Your task to perform on an android device: turn on wifi Image 0: 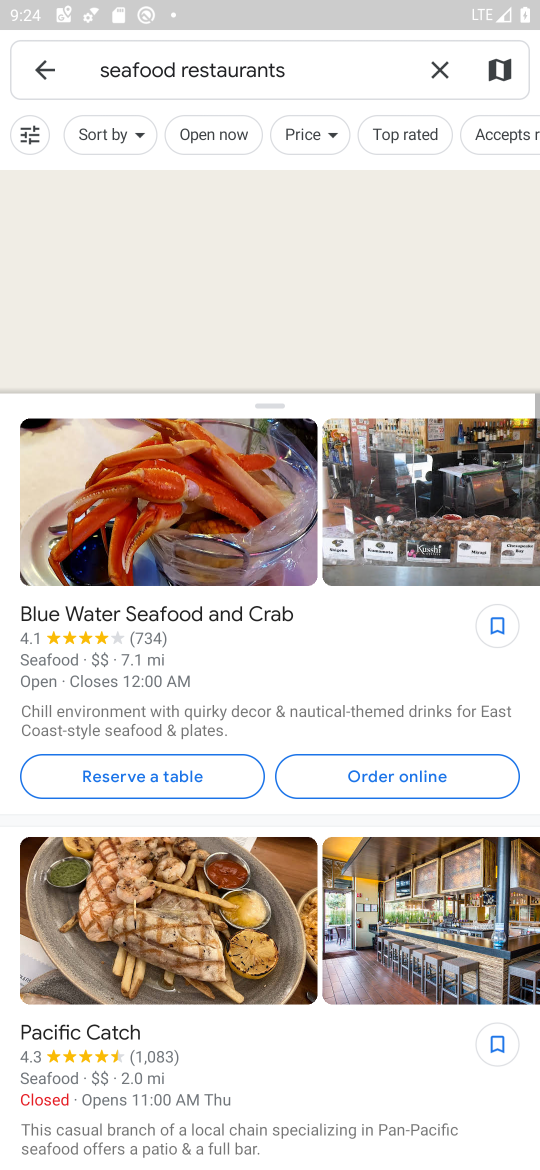
Step 0: press home button
Your task to perform on an android device: turn on wifi Image 1: 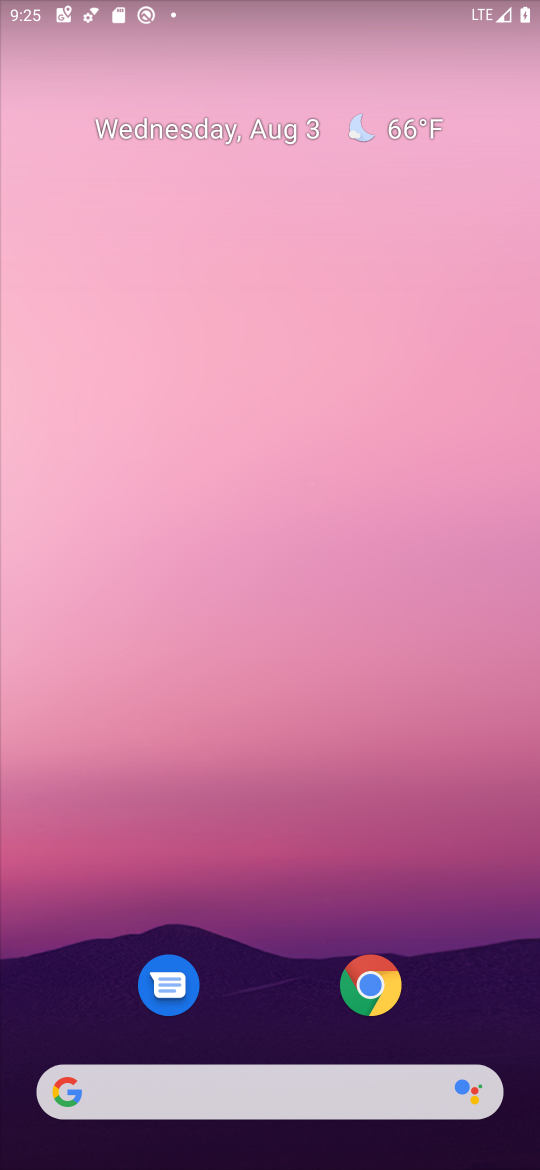
Step 1: drag from (269, 912) to (269, 303)
Your task to perform on an android device: turn on wifi Image 2: 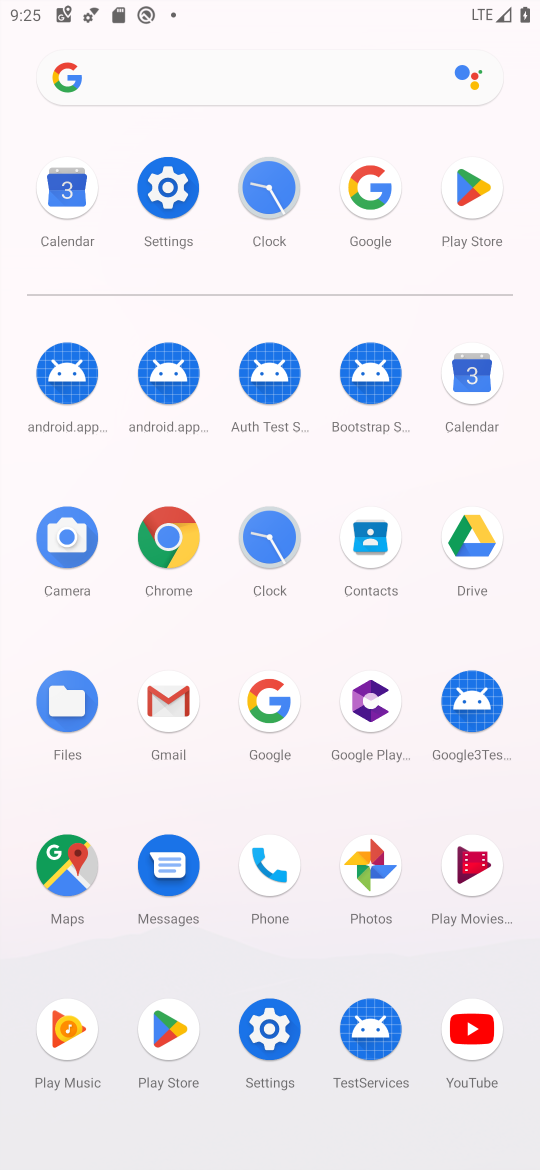
Step 2: click (167, 201)
Your task to perform on an android device: turn on wifi Image 3: 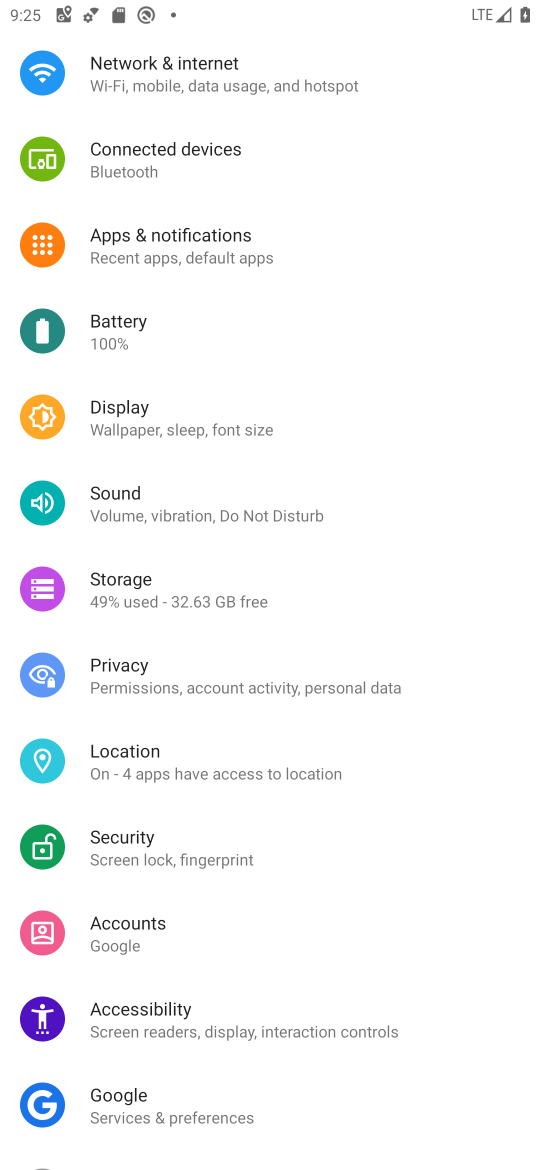
Step 3: click (243, 54)
Your task to perform on an android device: turn on wifi Image 4: 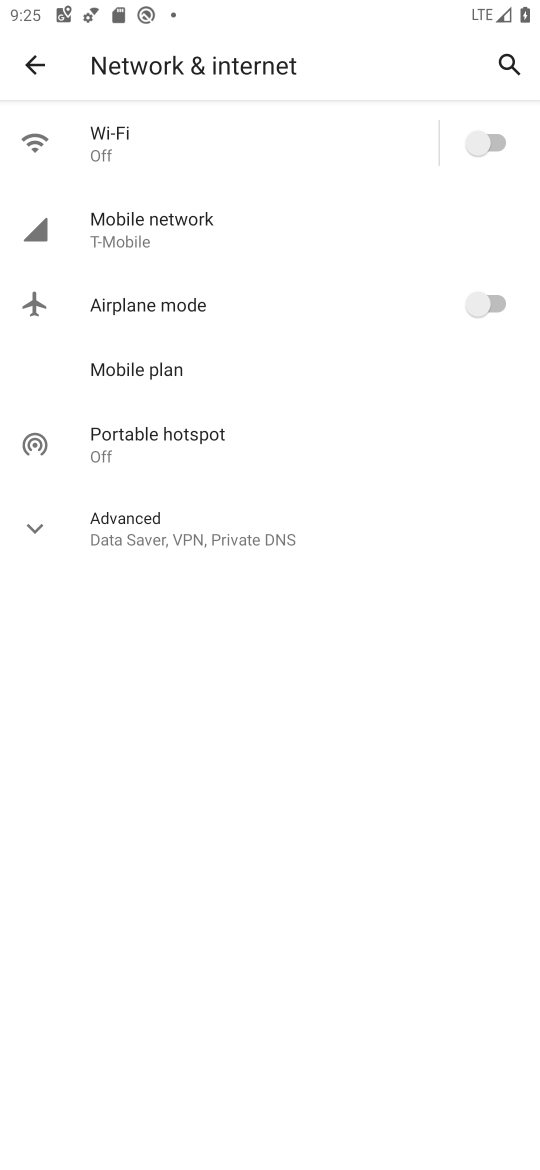
Step 4: click (484, 139)
Your task to perform on an android device: turn on wifi Image 5: 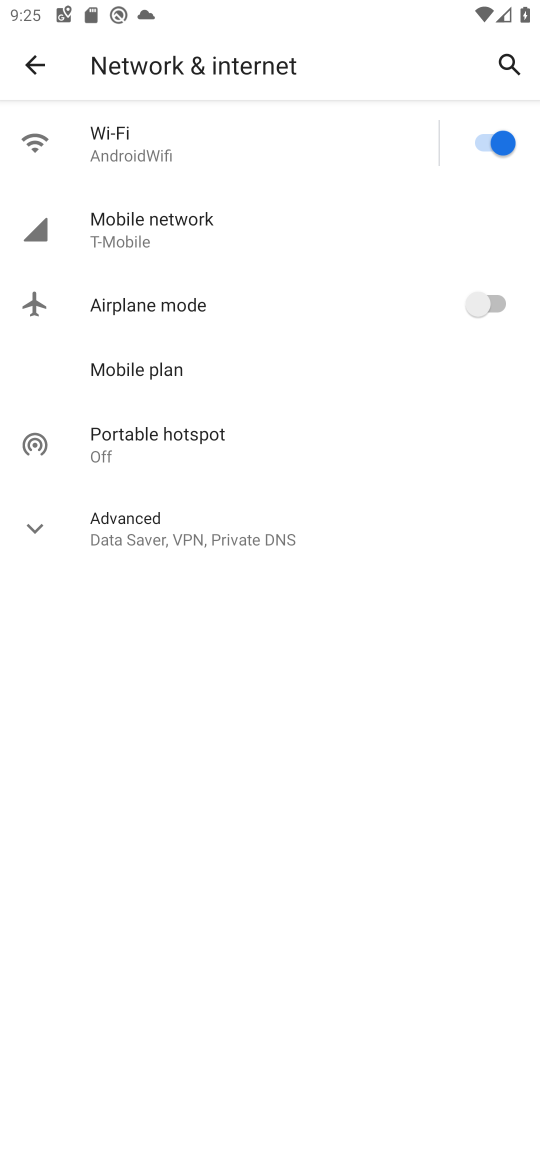
Step 5: task complete